Your task to perform on an android device: set the timer Image 0: 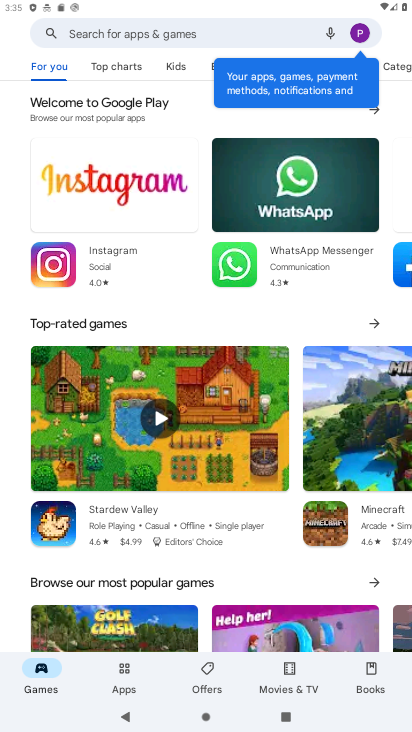
Step 0: press home button
Your task to perform on an android device: set the timer Image 1: 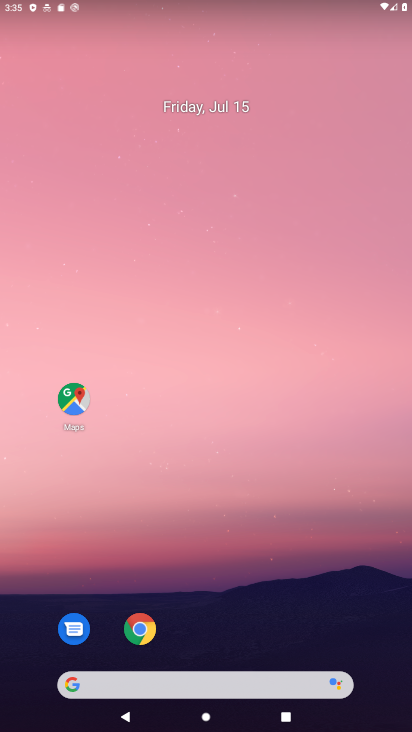
Step 1: drag from (195, 575) to (200, 153)
Your task to perform on an android device: set the timer Image 2: 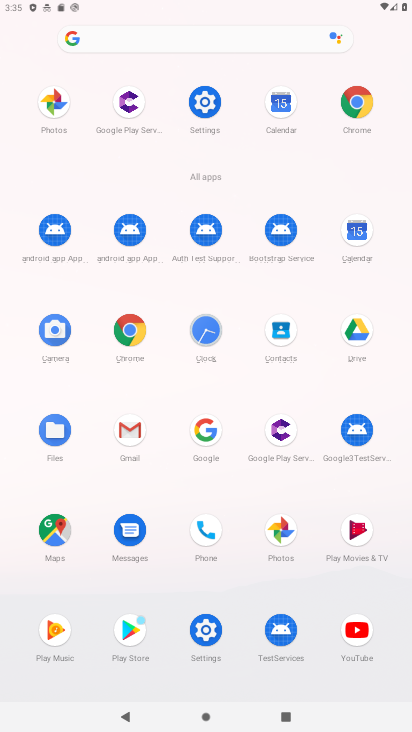
Step 2: click (203, 320)
Your task to perform on an android device: set the timer Image 3: 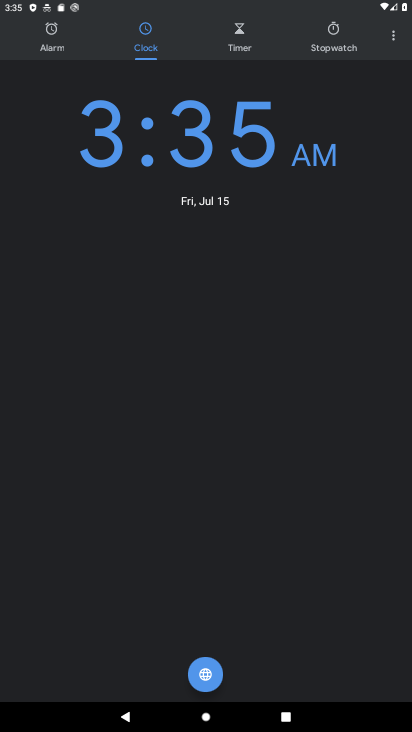
Step 3: click (246, 17)
Your task to perform on an android device: set the timer Image 4: 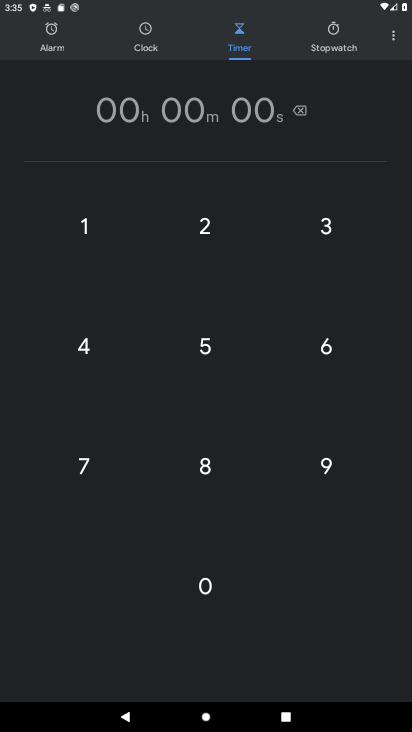
Step 4: click (211, 459)
Your task to perform on an android device: set the timer Image 5: 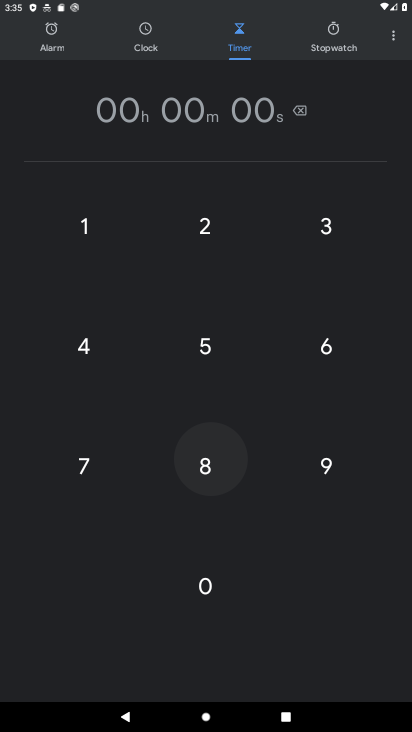
Step 5: click (211, 459)
Your task to perform on an android device: set the timer Image 6: 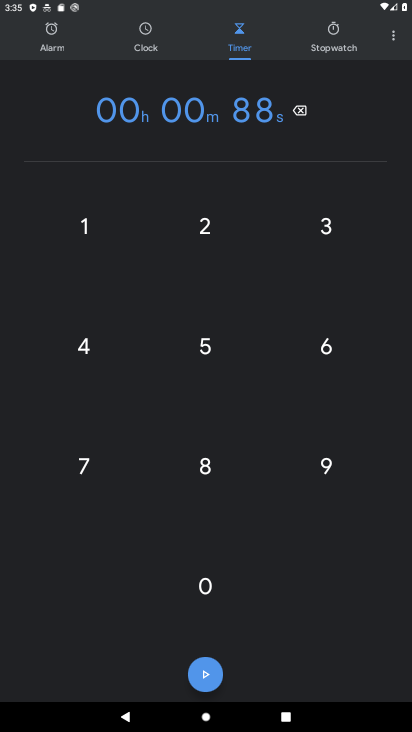
Step 6: click (213, 222)
Your task to perform on an android device: set the timer Image 7: 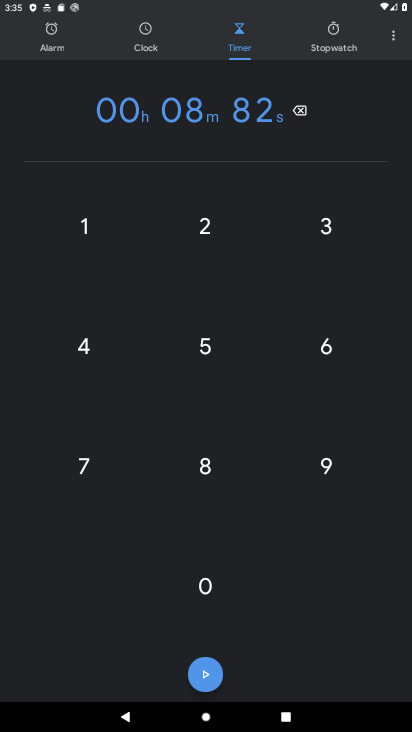
Step 7: task complete